Your task to perform on an android device: turn off data saver in the chrome app Image 0: 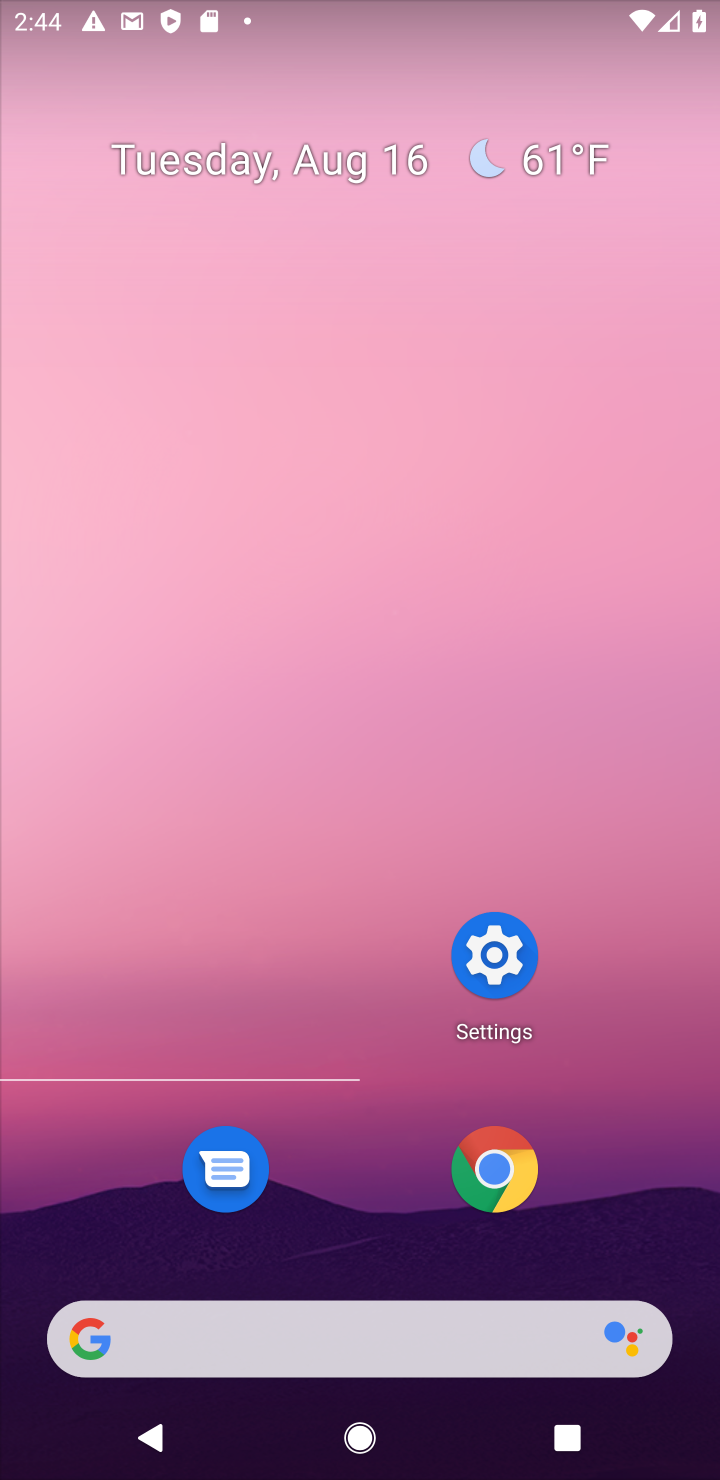
Step 0: press home button
Your task to perform on an android device: turn off data saver in the chrome app Image 1: 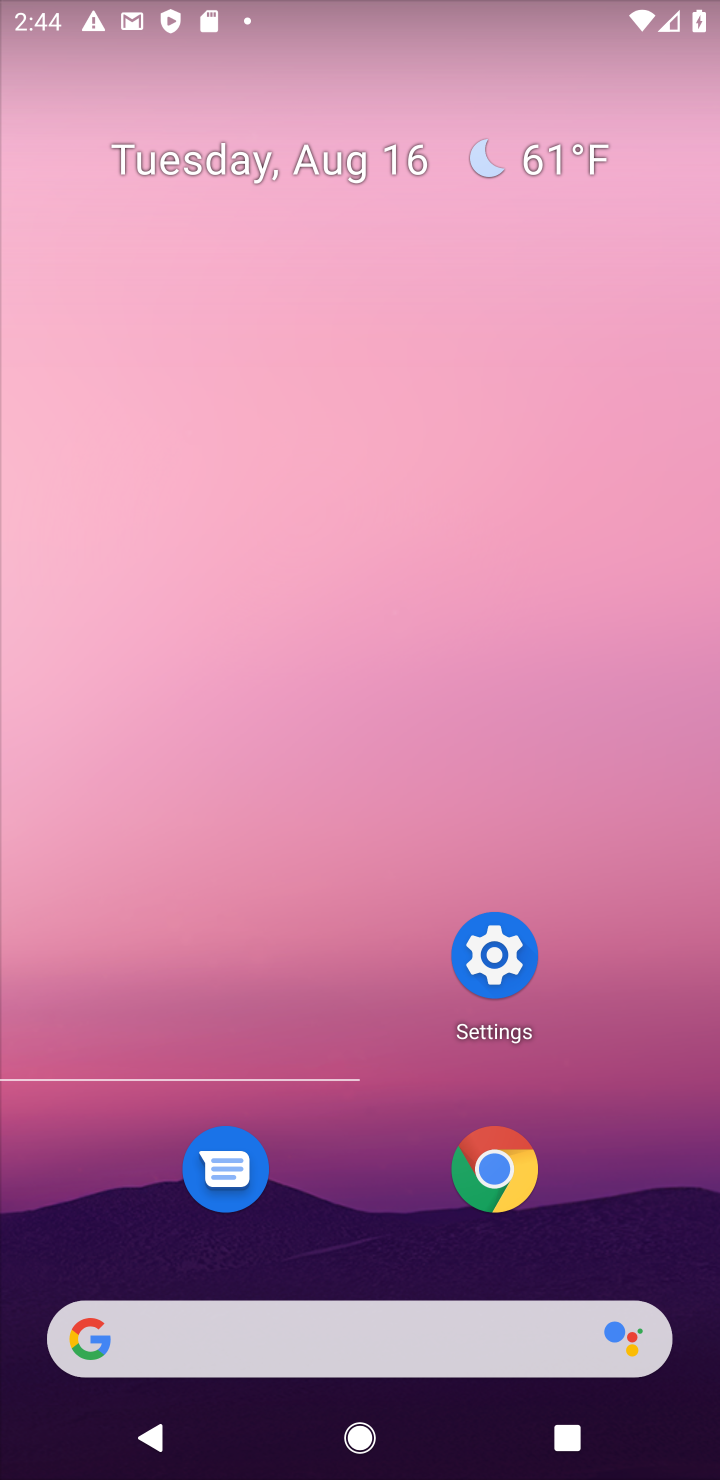
Step 1: click (477, 1160)
Your task to perform on an android device: turn off data saver in the chrome app Image 2: 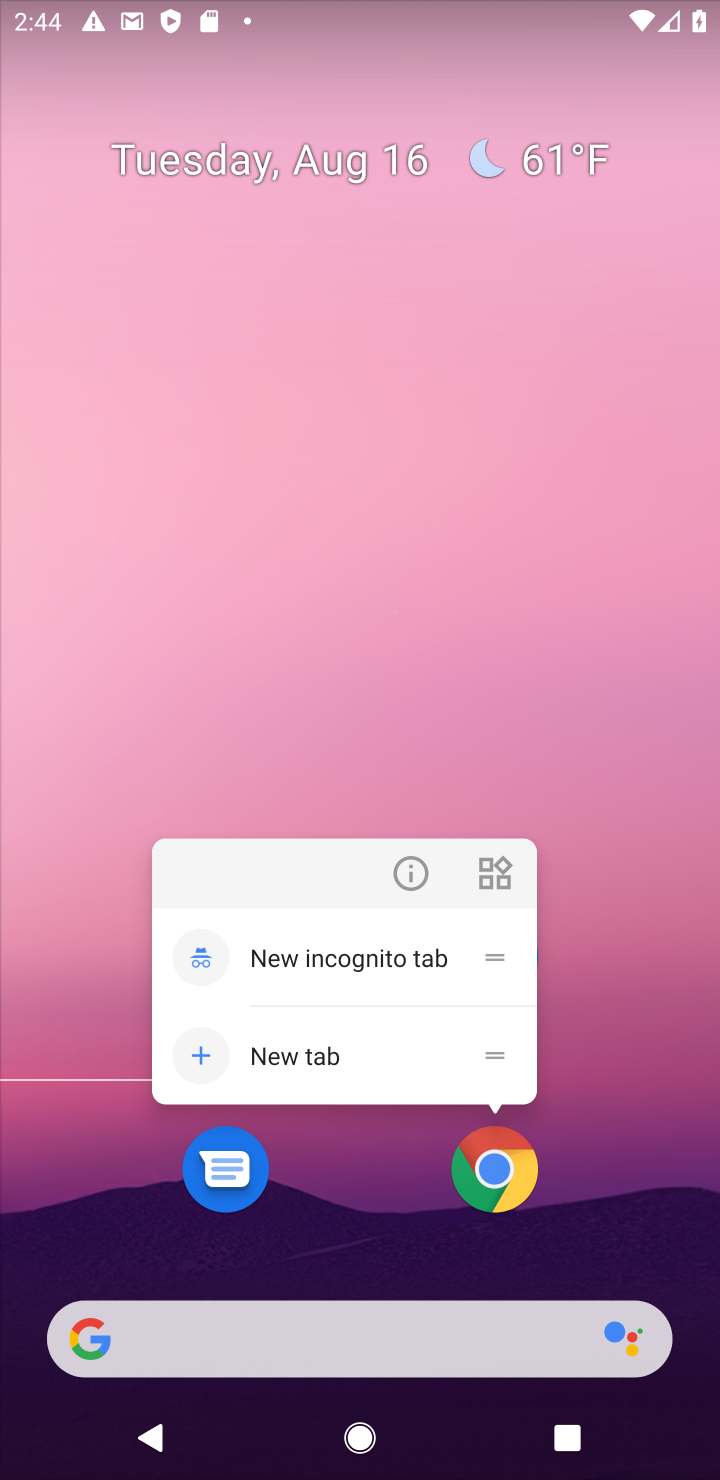
Step 2: click (477, 1174)
Your task to perform on an android device: turn off data saver in the chrome app Image 3: 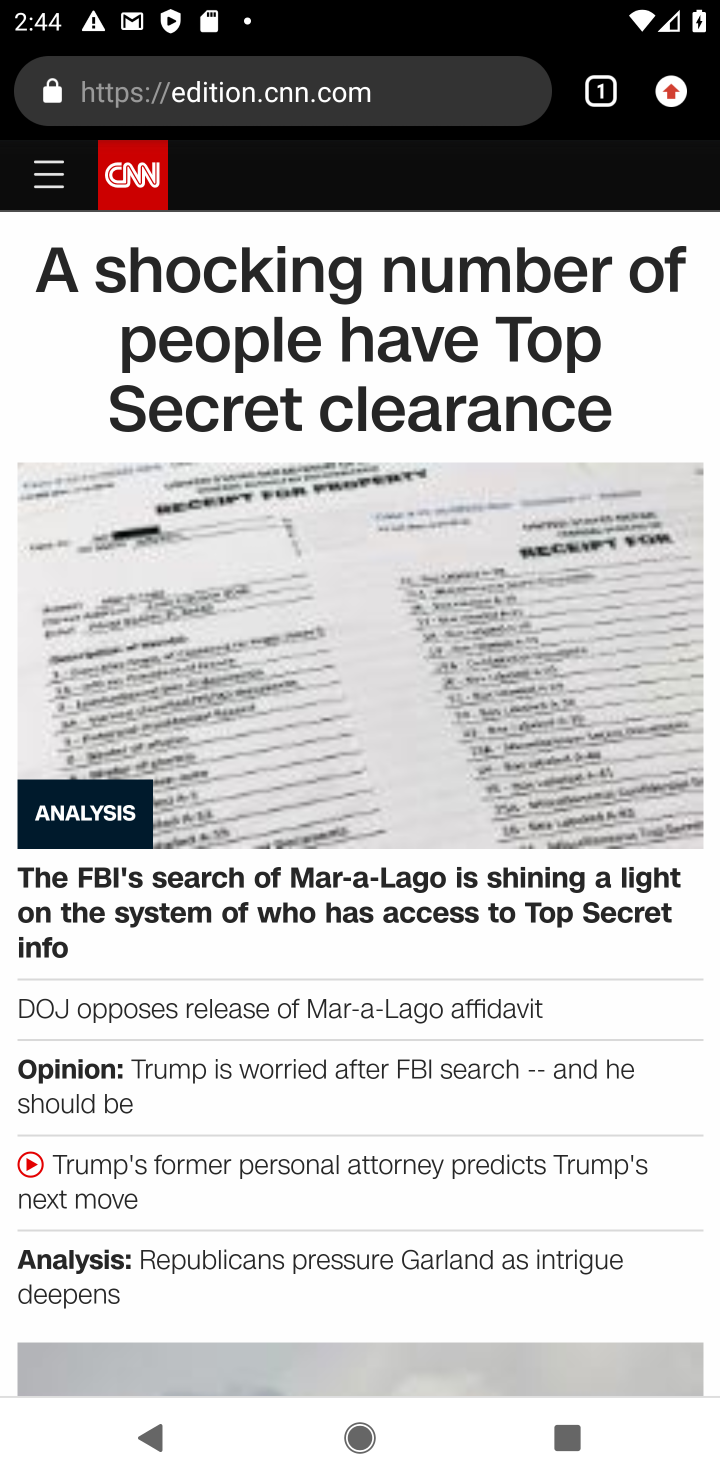
Step 3: drag from (671, 120) to (419, 1207)
Your task to perform on an android device: turn off data saver in the chrome app Image 4: 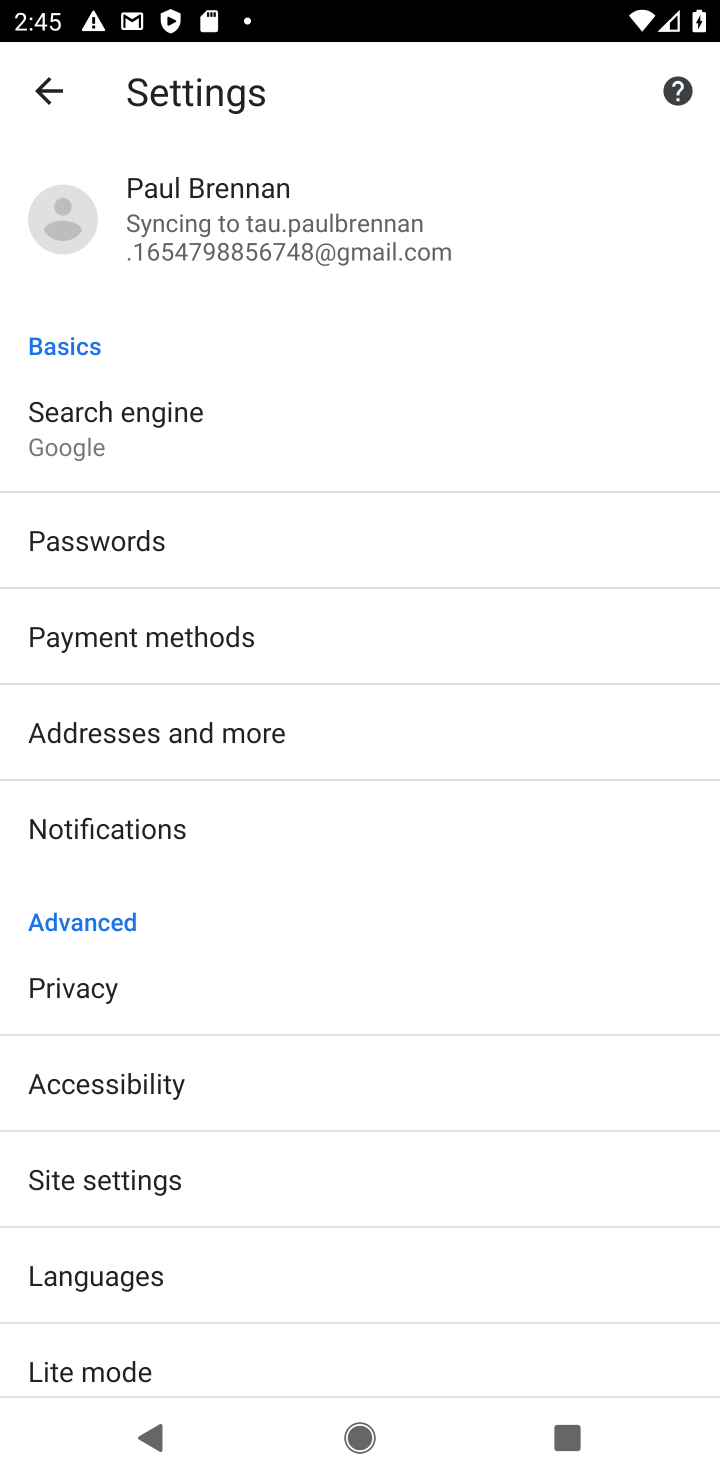
Step 4: click (159, 1371)
Your task to perform on an android device: turn off data saver in the chrome app Image 5: 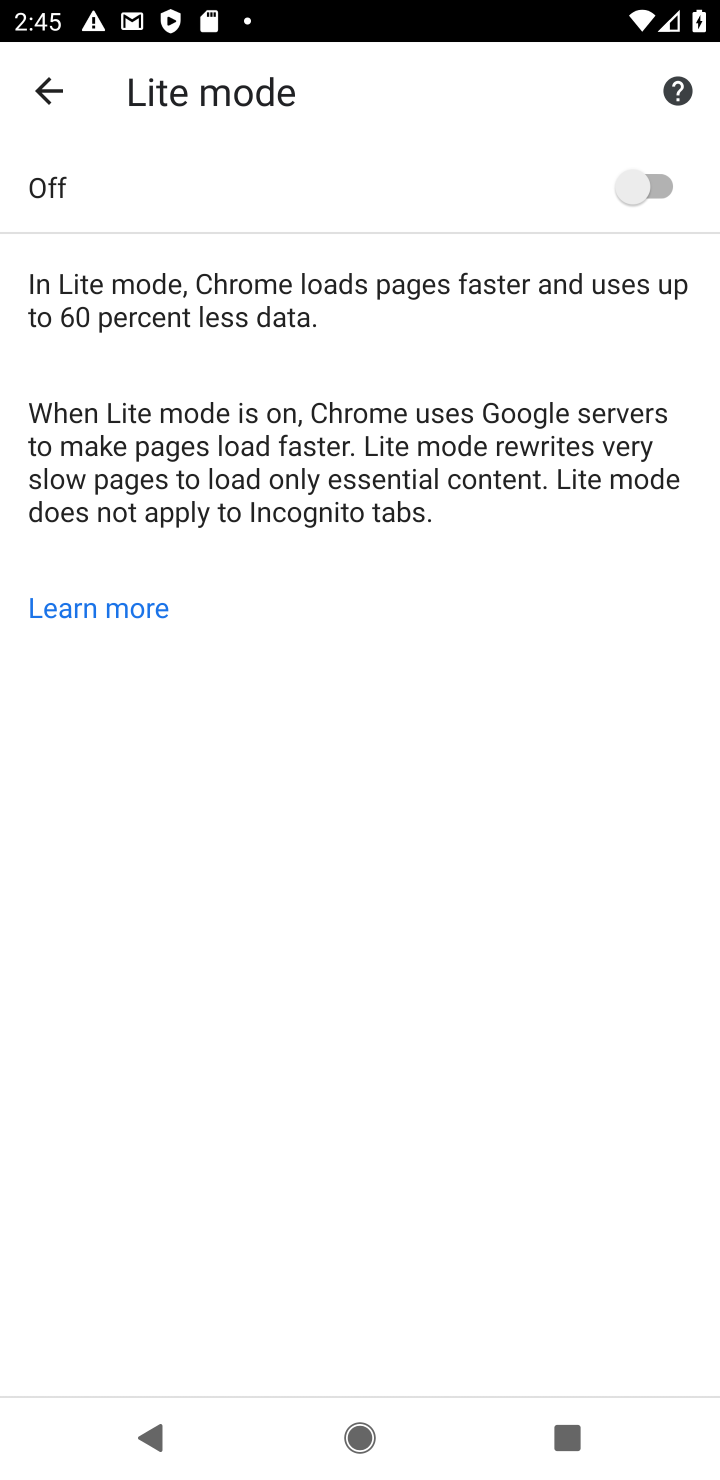
Step 5: task complete